Your task to perform on an android device: Do I have any events today? Image 0: 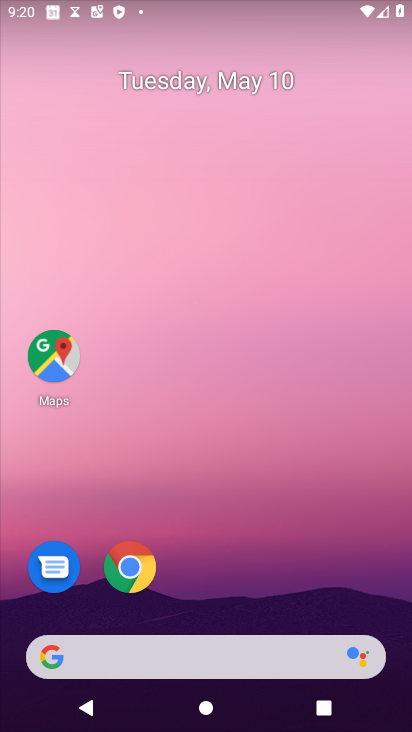
Step 0: press home button
Your task to perform on an android device: Do I have any events today? Image 1: 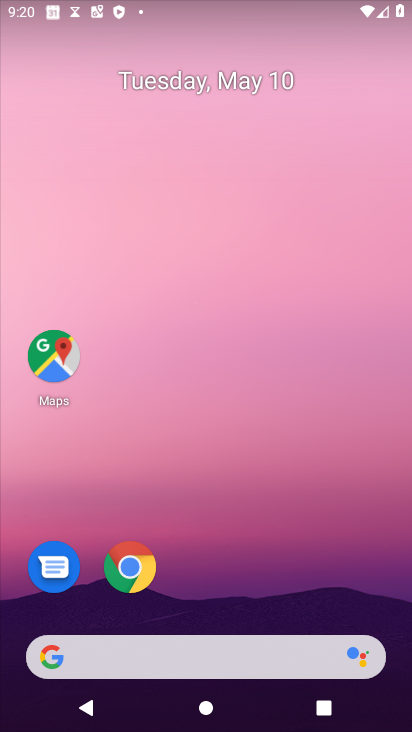
Step 1: drag from (53, 577) to (202, 203)
Your task to perform on an android device: Do I have any events today? Image 2: 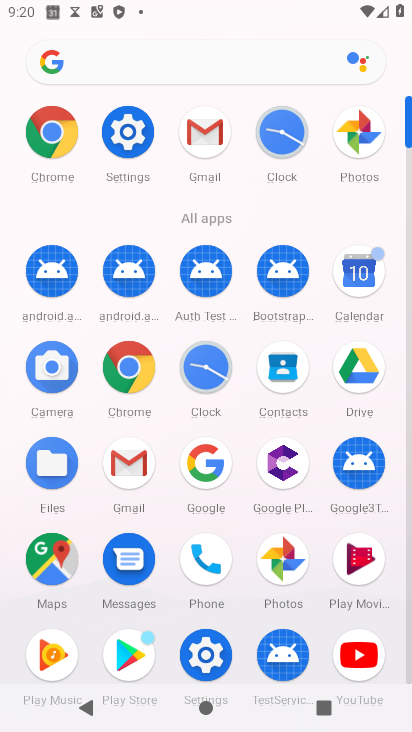
Step 2: click (351, 269)
Your task to perform on an android device: Do I have any events today? Image 3: 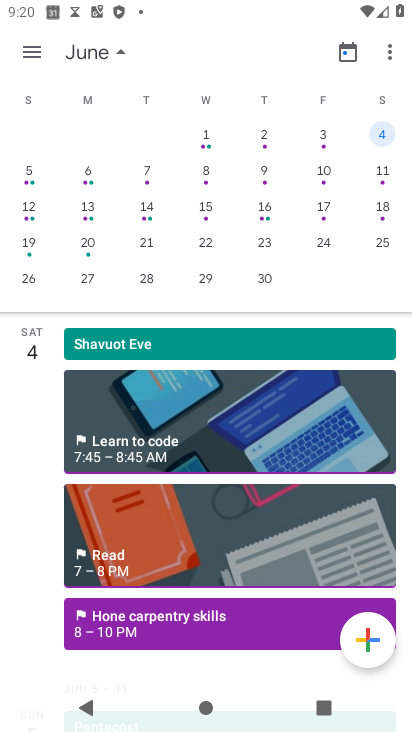
Step 3: drag from (229, 183) to (393, 183)
Your task to perform on an android device: Do I have any events today? Image 4: 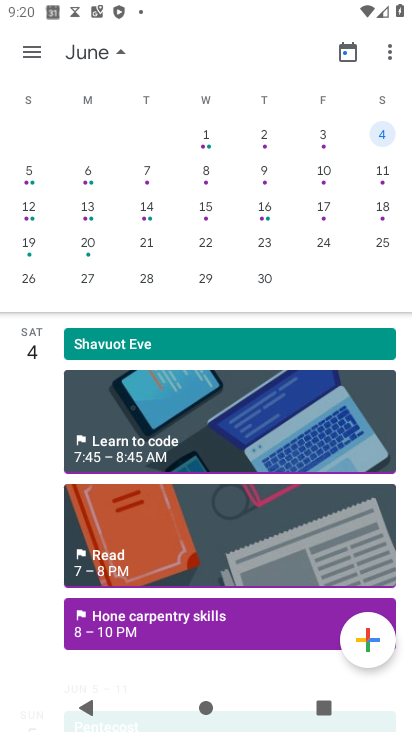
Step 4: drag from (11, 222) to (393, 230)
Your task to perform on an android device: Do I have any events today? Image 5: 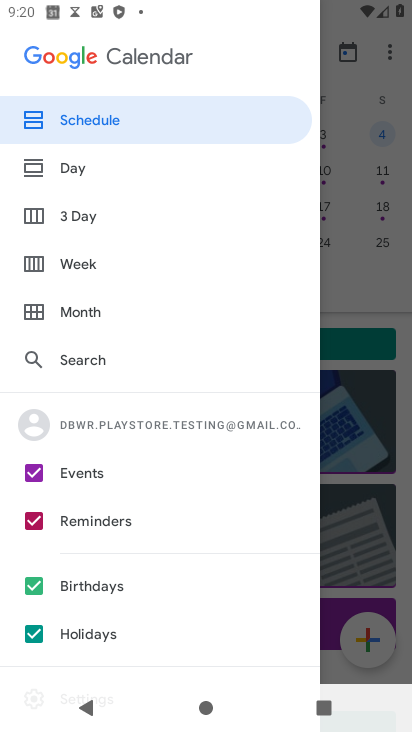
Step 5: click (386, 287)
Your task to perform on an android device: Do I have any events today? Image 6: 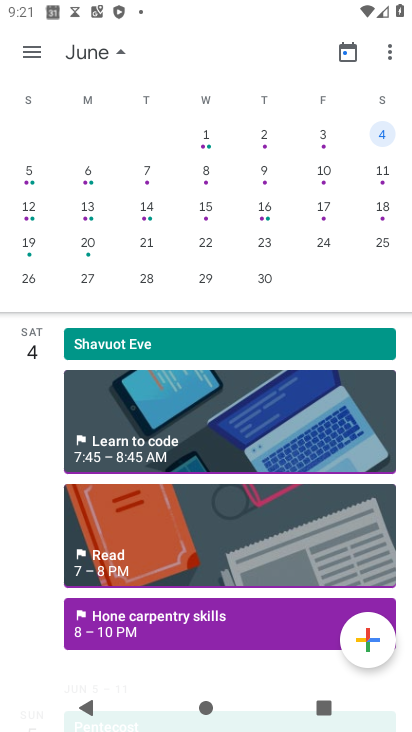
Step 6: drag from (18, 210) to (390, 225)
Your task to perform on an android device: Do I have any events today? Image 7: 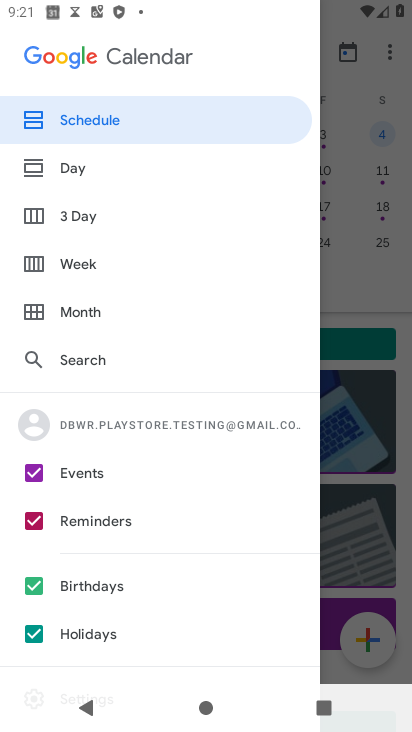
Step 7: click (408, 264)
Your task to perform on an android device: Do I have any events today? Image 8: 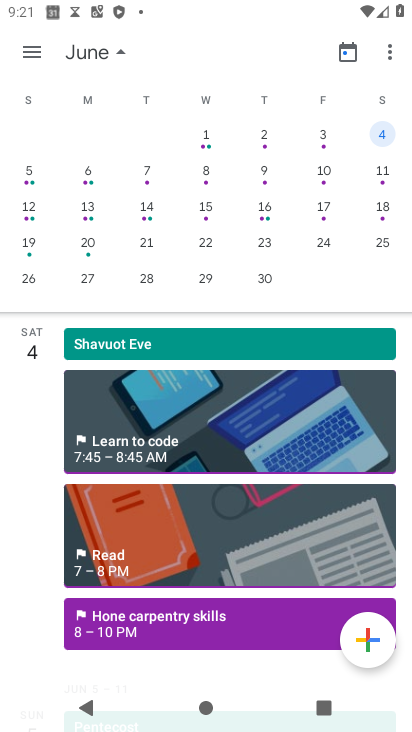
Step 8: drag from (47, 191) to (403, 227)
Your task to perform on an android device: Do I have any events today? Image 9: 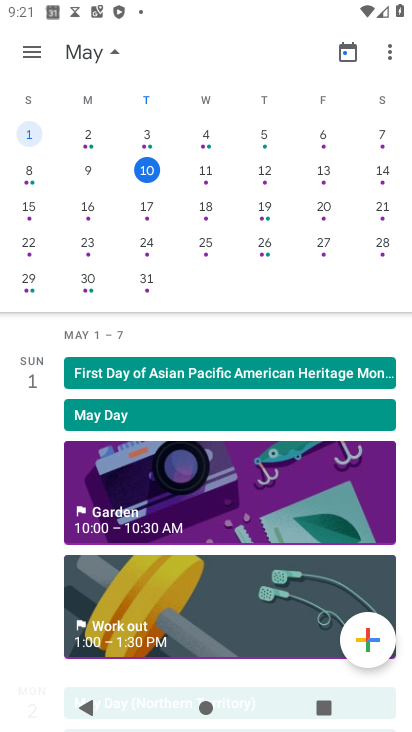
Step 9: click (141, 173)
Your task to perform on an android device: Do I have any events today? Image 10: 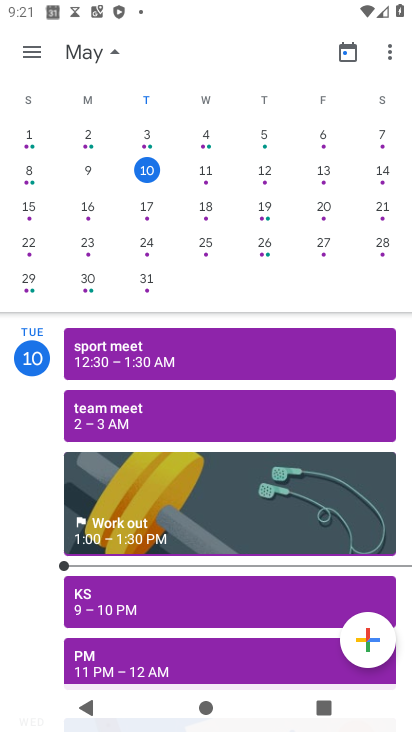
Step 10: task complete